Your task to perform on an android device: Add razer blade to the cart on ebay.com, then select checkout. Image 0: 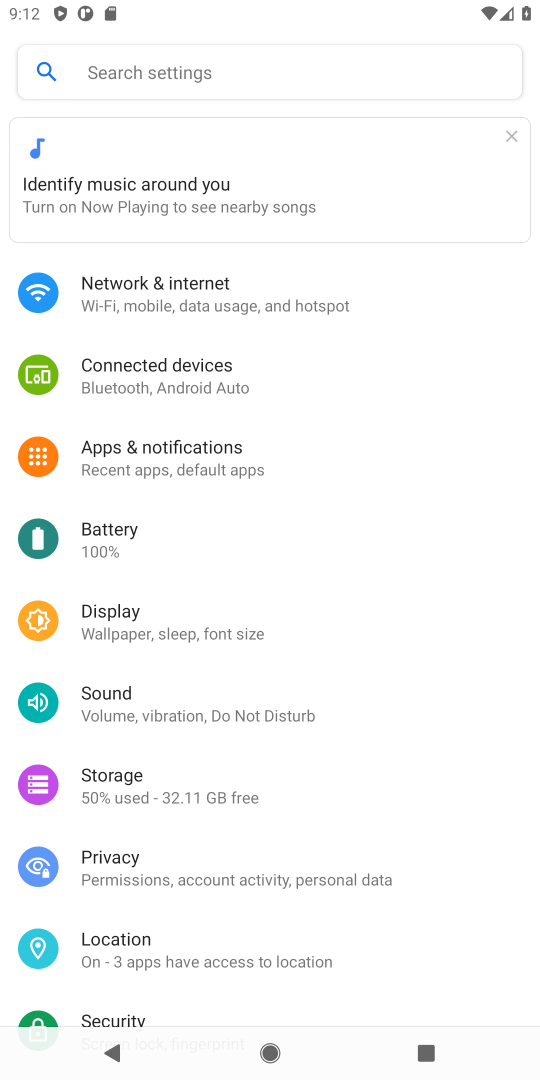
Step 0: press home button
Your task to perform on an android device: Add razer blade to the cart on ebay.com, then select checkout. Image 1: 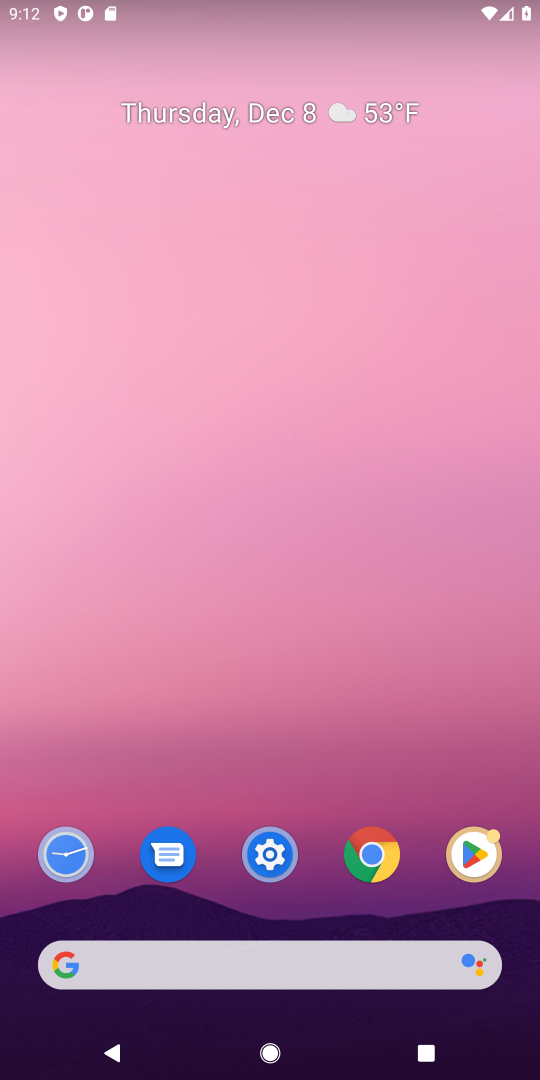
Step 1: click (95, 966)
Your task to perform on an android device: Add razer blade to the cart on ebay.com, then select checkout. Image 2: 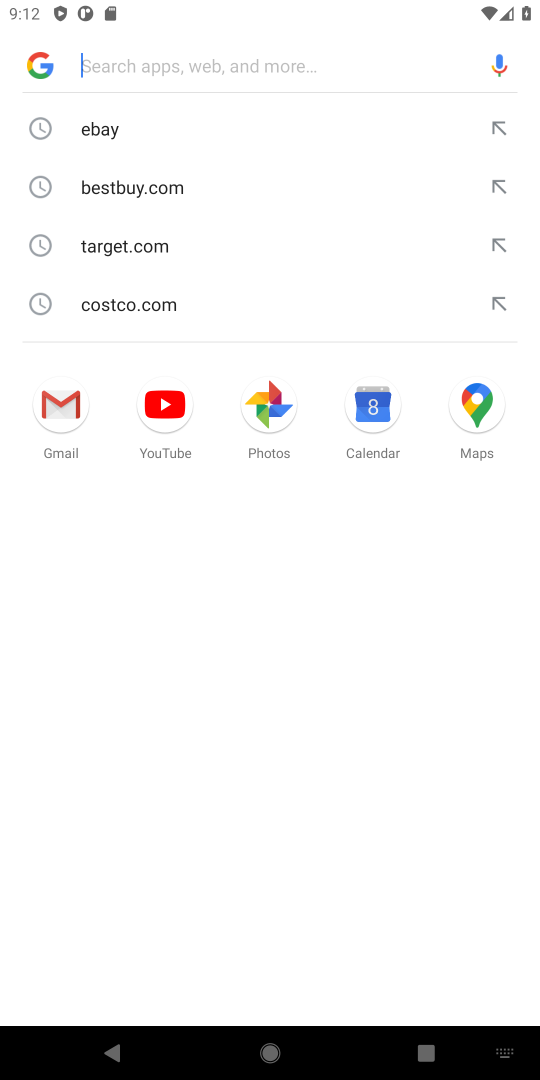
Step 2: type "ebay.com"
Your task to perform on an android device: Add razer blade to the cart on ebay.com, then select checkout. Image 3: 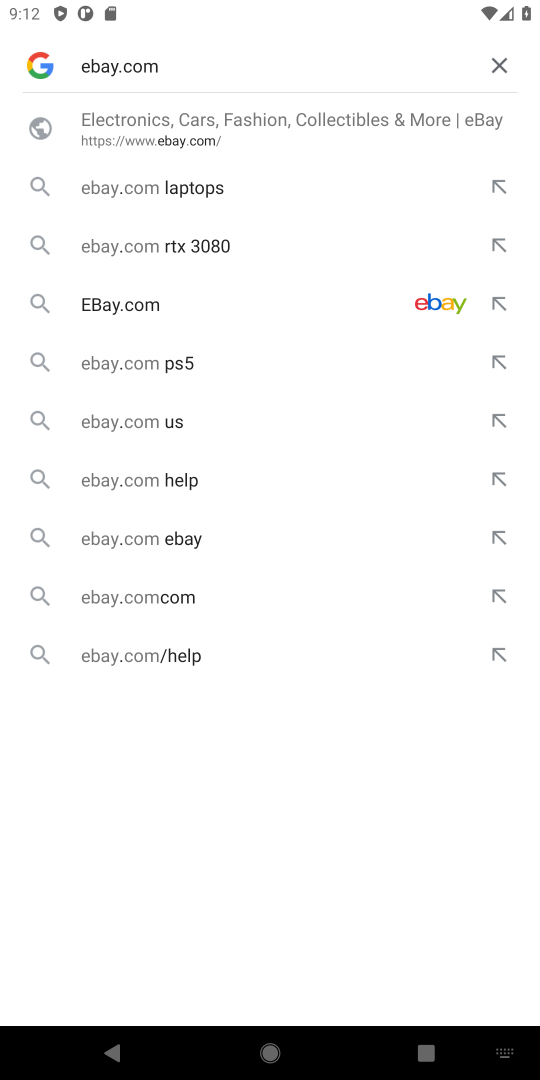
Step 3: press enter
Your task to perform on an android device: Add razer blade to the cart on ebay.com, then select checkout. Image 4: 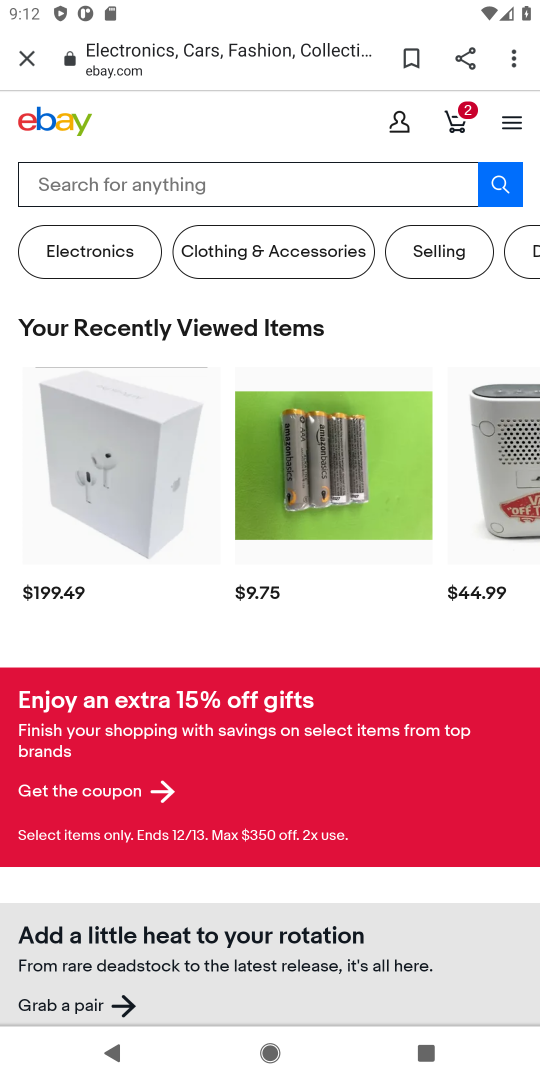
Step 4: click (77, 180)
Your task to perform on an android device: Add razer blade to the cart on ebay.com, then select checkout. Image 5: 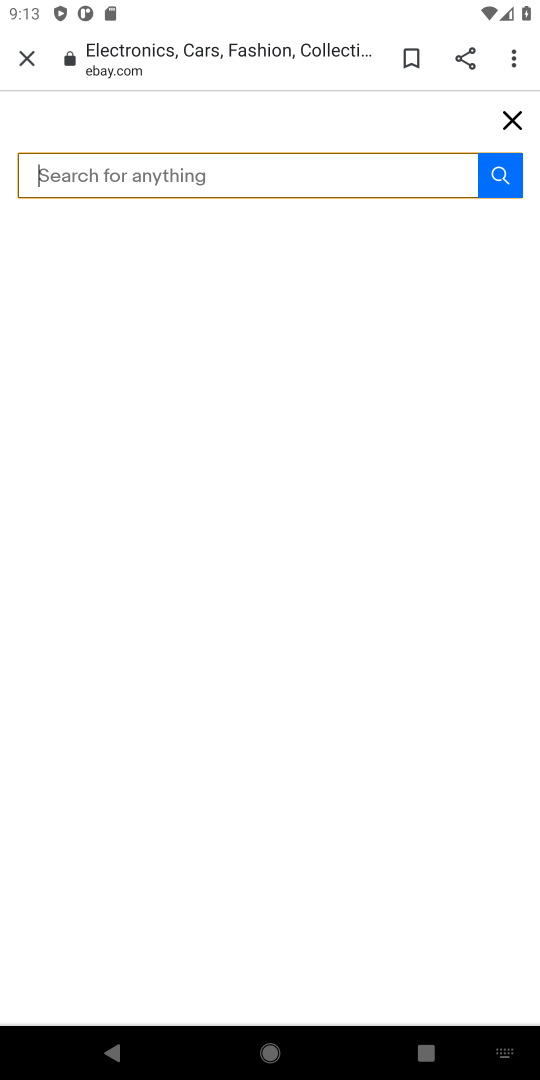
Step 5: type "razer blade"
Your task to perform on an android device: Add razer blade to the cart on ebay.com, then select checkout. Image 6: 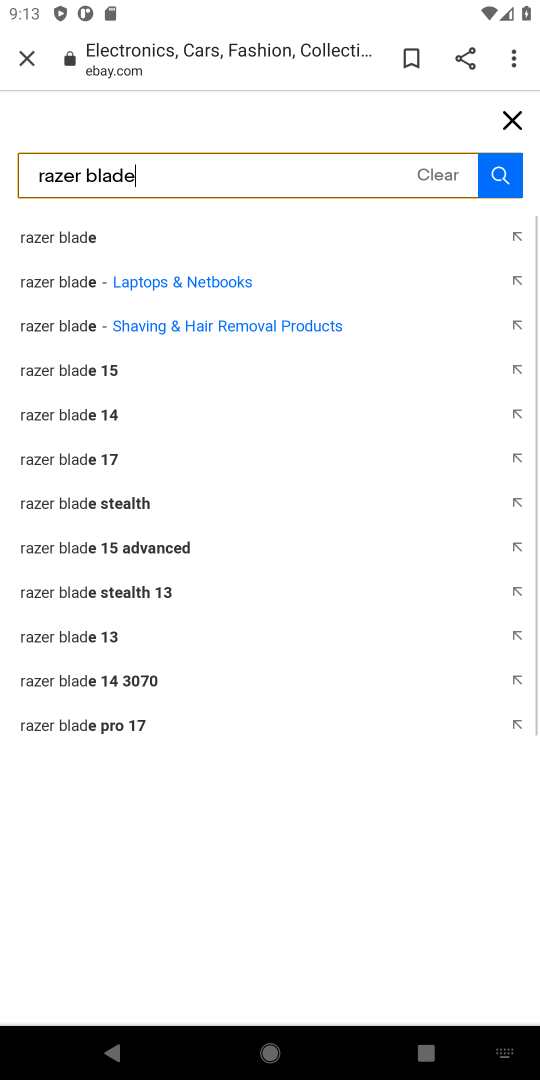
Step 6: press enter
Your task to perform on an android device: Add razer blade to the cart on ebay.com, then select checkout. Image 7: 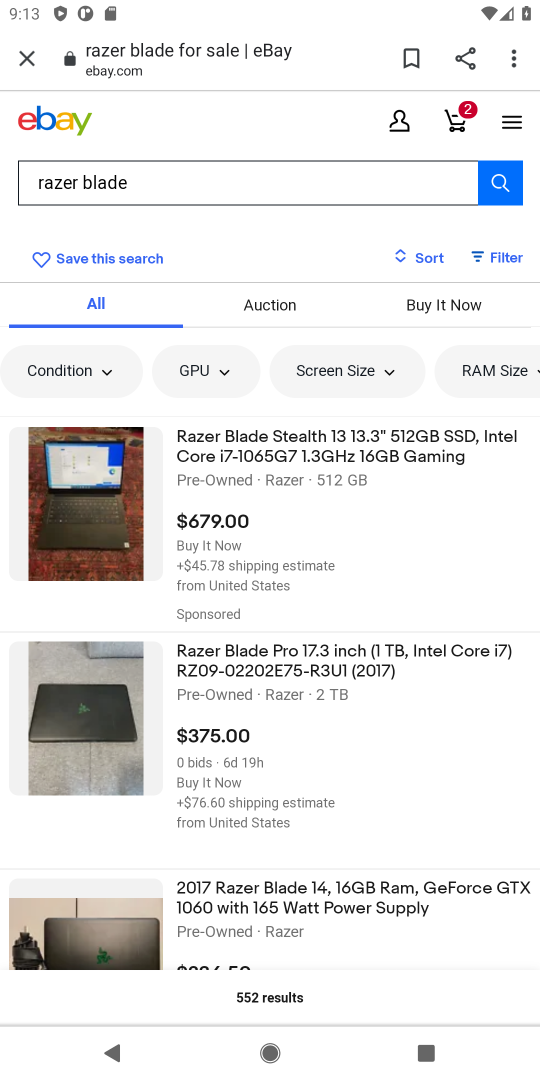
Step 7: click (231, 462)
Your task to perform on an android device: Add razer blade to the cart on ebay.com, then select checkout. Image 8: 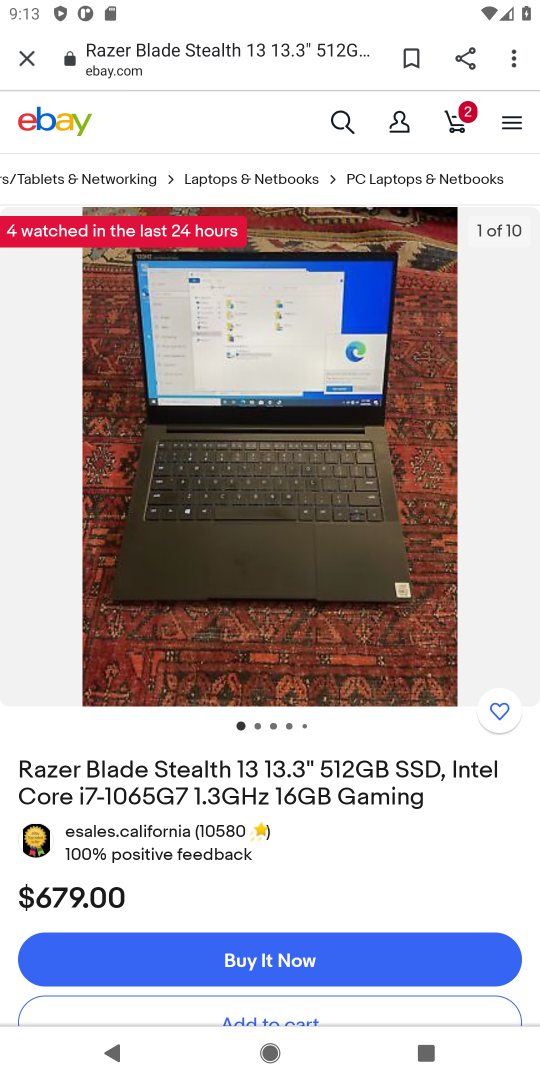
Step 8: drag from (392, 801) to (427, 311)
Your task to perform on an android device: Add razer blade to the cart on ebay.com, then select checkout. Image 9: 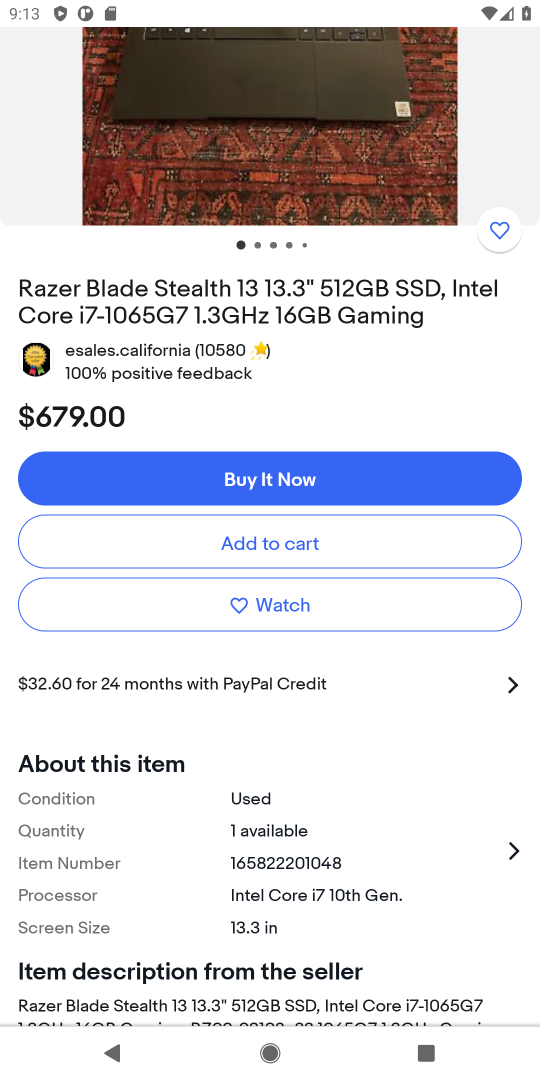
Step 9: click (248, 542)
Your task to perform on an android device: Add razer blade to the cart on ebay.com, then select checkout. Image 10: 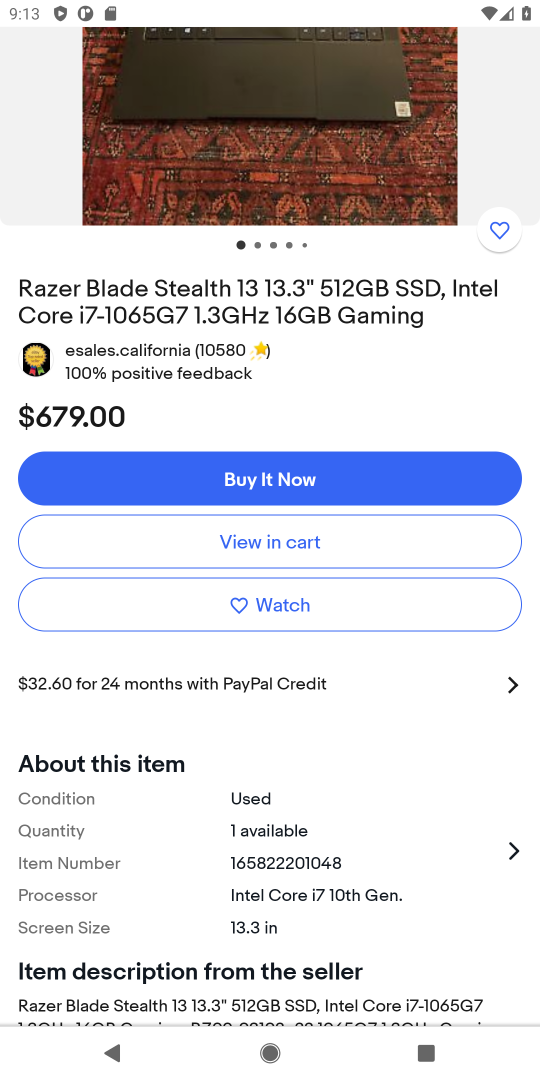
Step 10: click (240, 547)
Your task to perform on an android device: Add razer blade to the cart on ebay.com, then select checkout. Image 11: 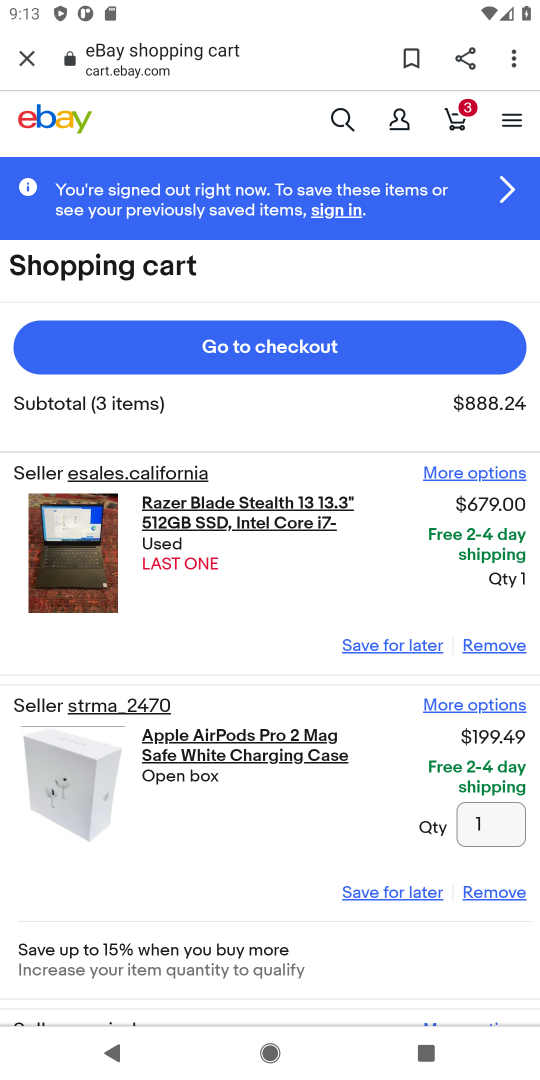
Step 11: click (248, 343)
Your task to perform on an android device: Add razer blade to the cart on ebay.com, then select checkout. Image 12: 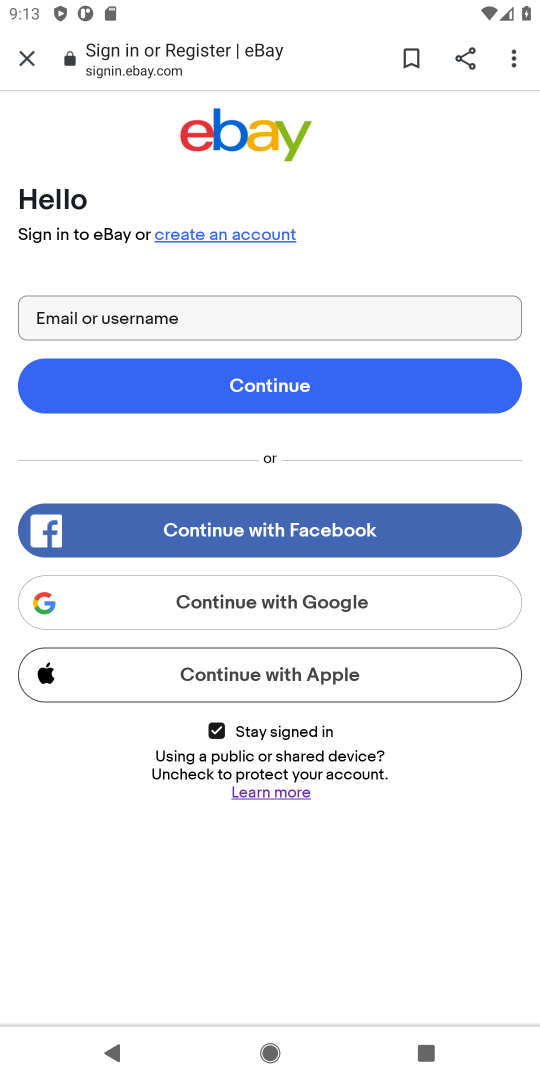
Step 12: task complete